Your task to perform on an android device: choose inbox layout in the gmail app Image 0: 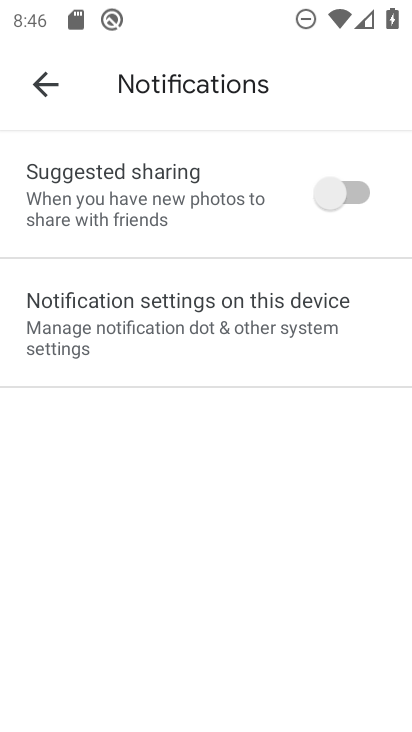
Step 0: press home button
Your task to perform on an android device: choose inbox layout in the gmail app Image 1: 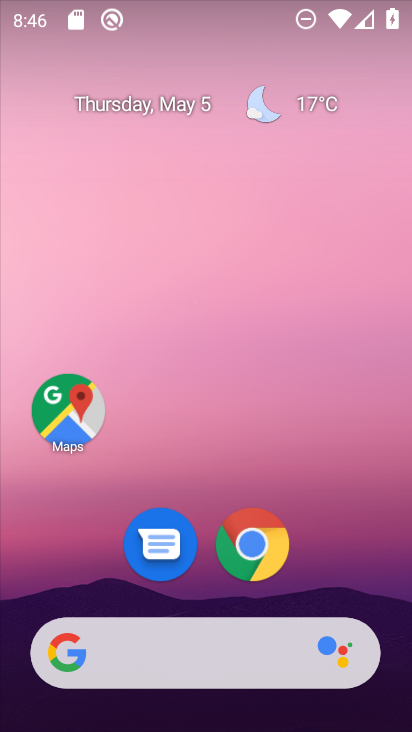
Step 1: drag from (393, 637) to (290, 107)
Your task to perform on an android device: choose inbox layout in the gmail app Image 2: 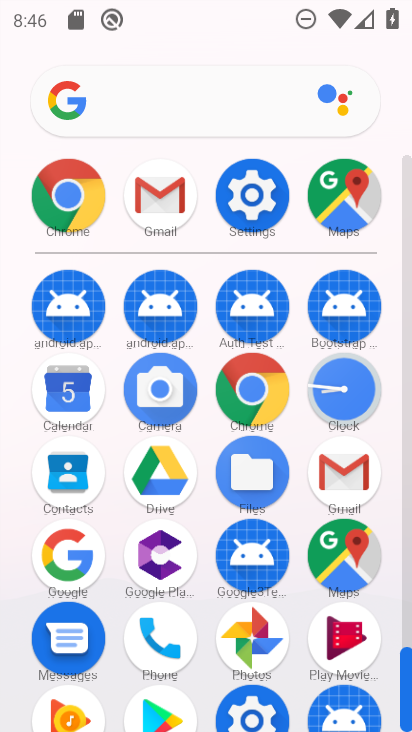
Step 2: click (341, 487)
Your task to perform on an android device: choose inbox layout in the gmail app Image 3: 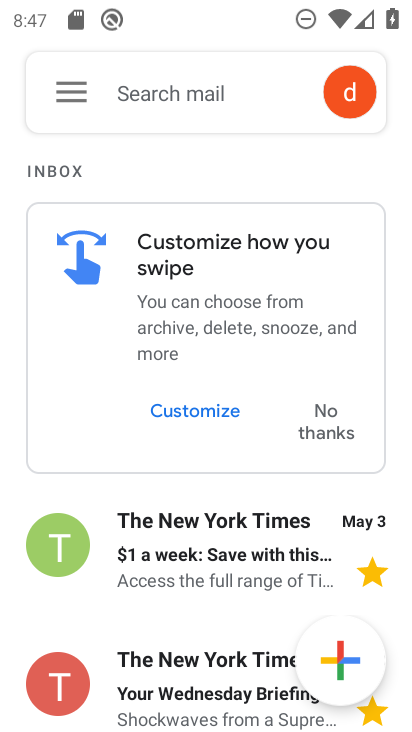
Step 3: task complete